Your task to perform on an android device: find photos in the google photos app Image 0: 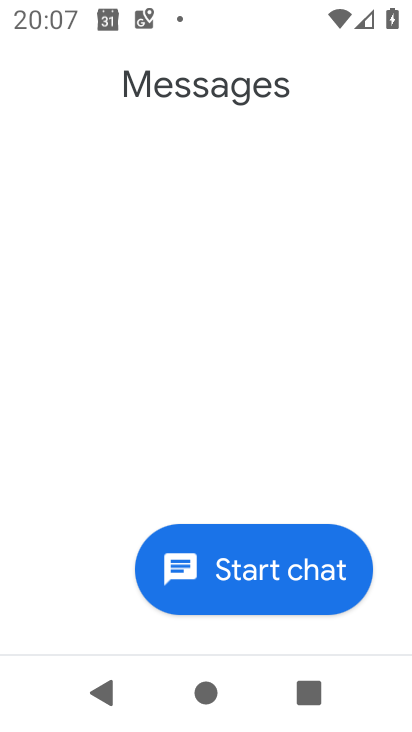
Step 0: drag from (316, 563) to (352, 301)
Your task to perform on an android device: find photos in the google photos app Image 1: 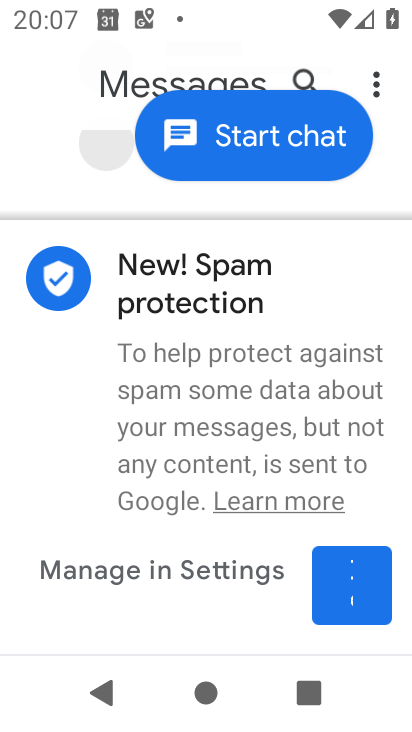
Step 1: press home button
Your task to perform on an android device: find photos in the google photos app Image 2: 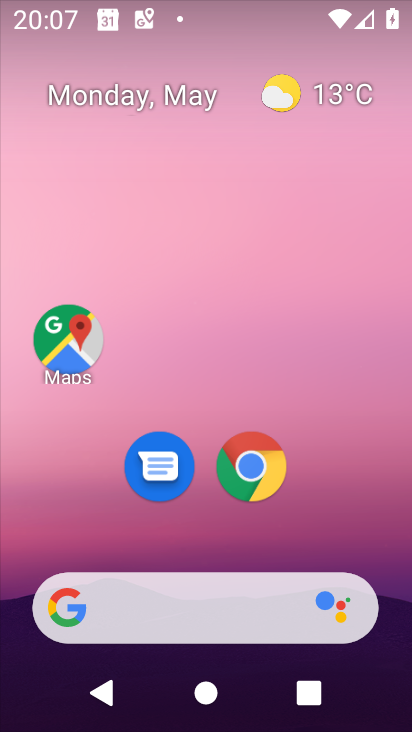
Step 2: drag from (298, 548) to (344, 225)
Your task to perform on an android device: find photos in the google photos app Image 3: 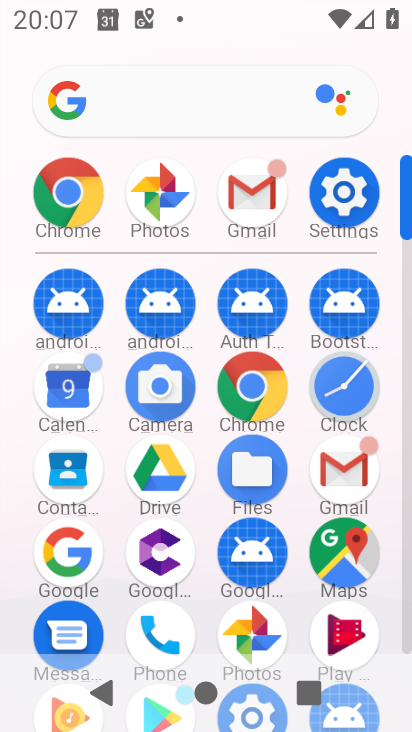
Step 3: drag from (279, 604) to (282, 403)
Your task to perform on an android device: find photos in the google photos app Image 4: 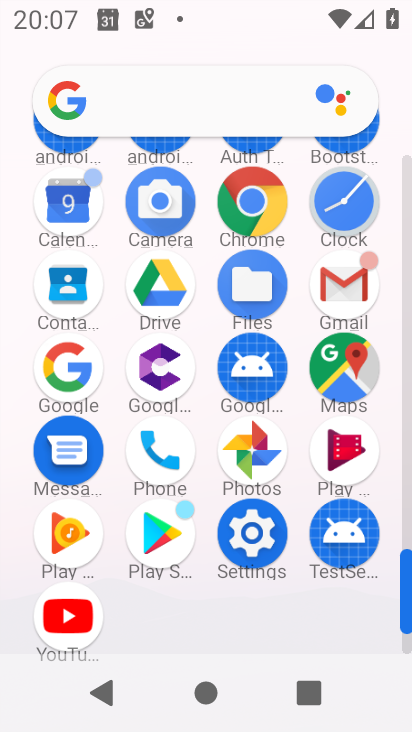
Step 4: click (249, 450)
Your task to perform on an android device: find photos in the google photos app Image 5: 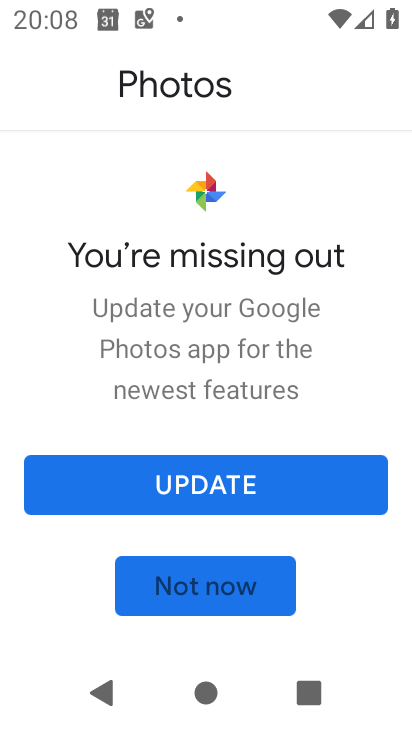
Step 5: click (259, 473)
Your task to perform on an android device: find photos in the google photos app Image 6: 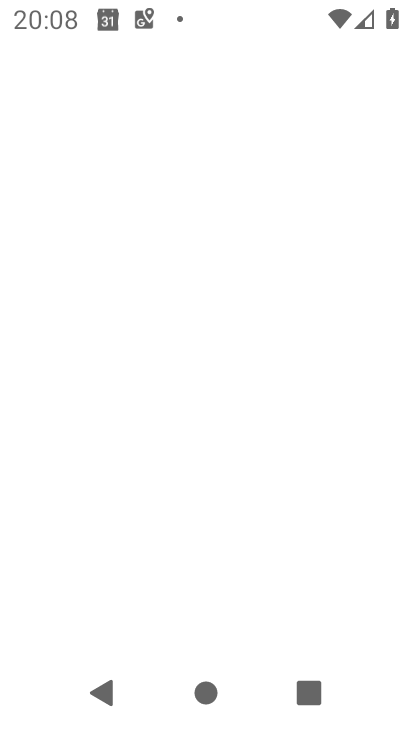
Step 6: press back button
Your task to perform on an android device: find photos in the google photos app Image 7: 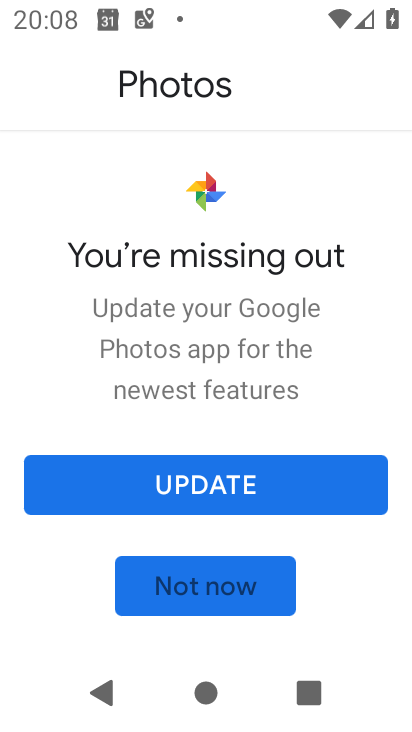
Step 7: click (199, 589)
Your task to perform on an android device: find photos in the google photos app Image 8: 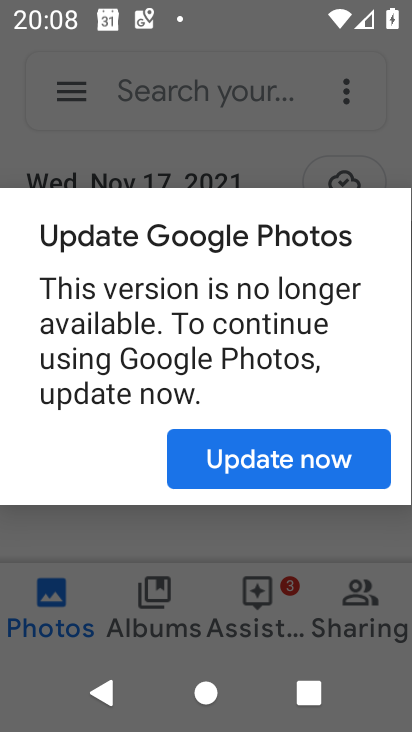
Step 8: click (360, 469)
Your task to perform on an android device: find photos in the google photos app Image 9: 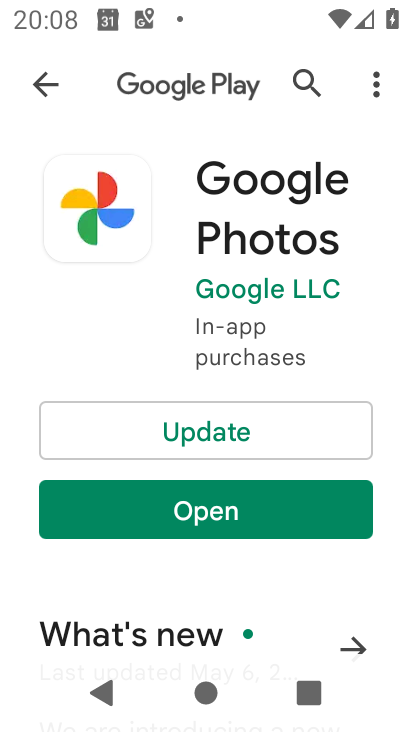
Step 9: press back button
Your task to perform on an android device: find photos in the google photos app Image 10: 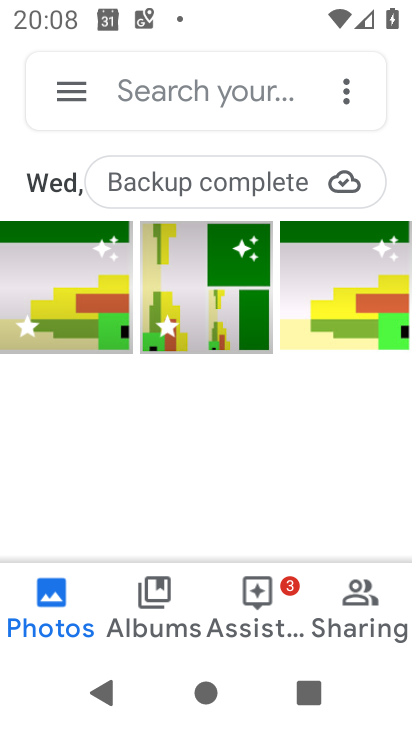
Step 10: click (81, 265)
Your task to perform on an android device: find photos in the google photos app Image 11: 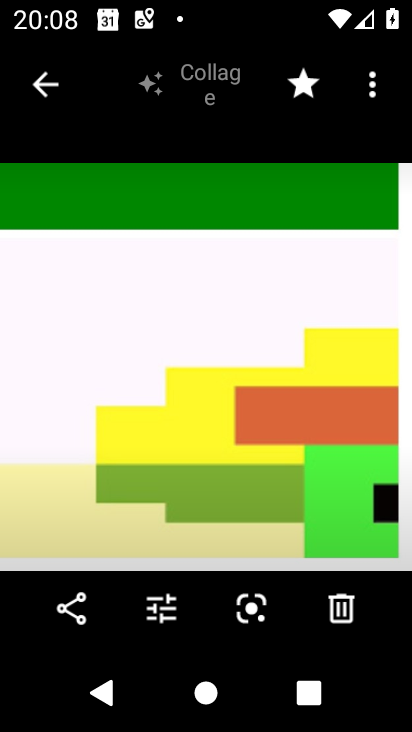
Step 11: task complete